Your task to perform on an android device: Go to Wikipedia Image 0: 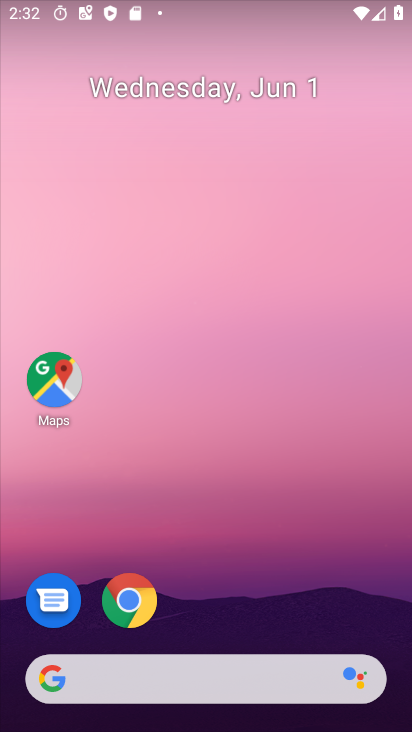
Step 0: click (165, 96)
Your task to perform on an android device: Go to Wikipedia Image 1: 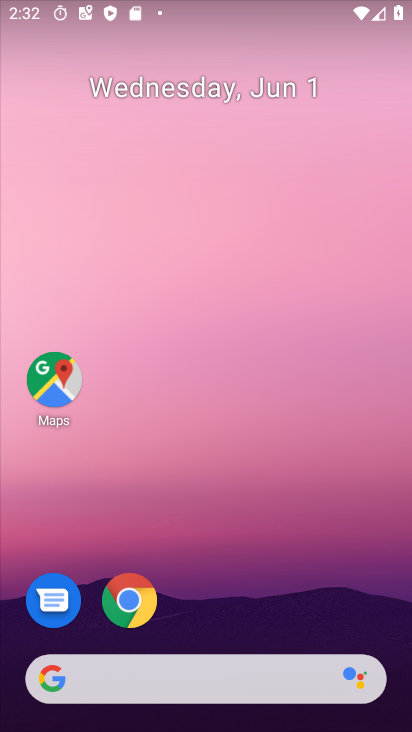
Step 1: drag from (248, 594) to (130, 199)
Your task to perform on an android device: Go to Wikipedia Image 2: 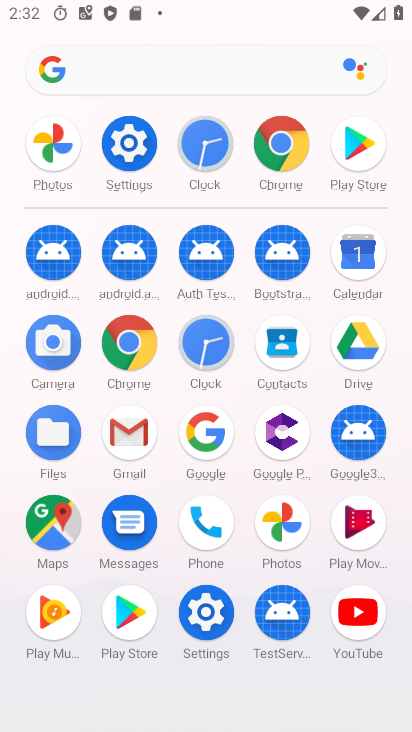
Step 2: click (136, 346)
Your task to perform on an android device: Go to Wikipedia Image 3: 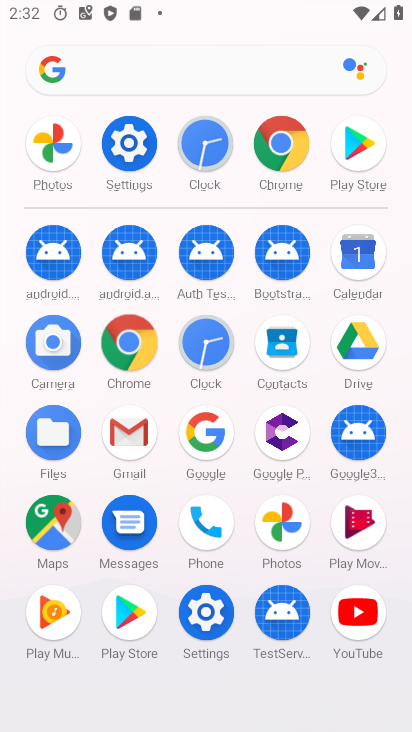
Step 3: click (136, 346)
Your task to perform on an android device: Go to Wikipedia Image 4: 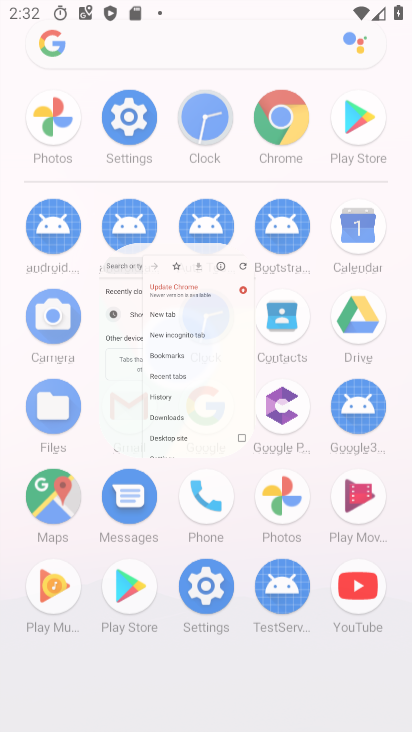
Step 4: click (137, 345)
Your task to perform on an android device: Go to Wikipedia Image 5: 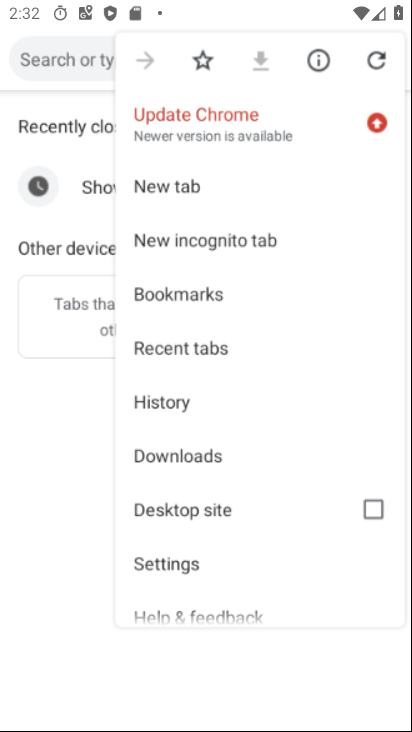
Step 5: click (139, 341)
Your task to perform on an android device: Go to Wikipedia Image 6: 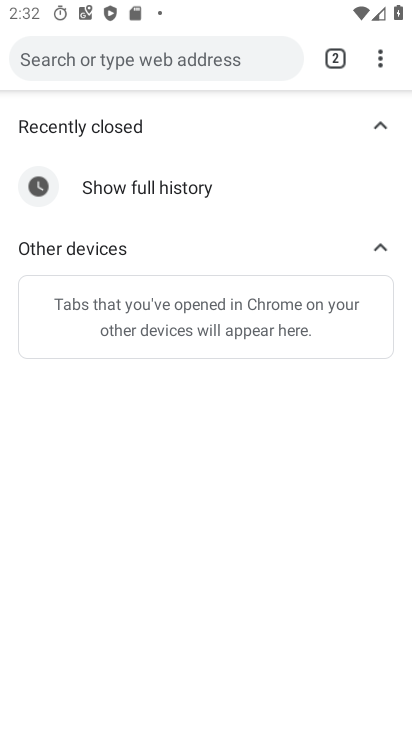
Step 6: press back button
Your task to perform on an android device: Go to Wikipedia Image 7: 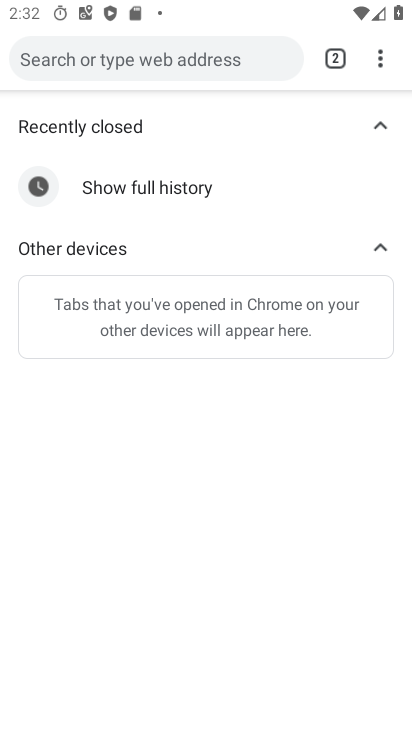
Step 7: press back button
Your task to perform on an android device: Go to Wikipedia Image 8: 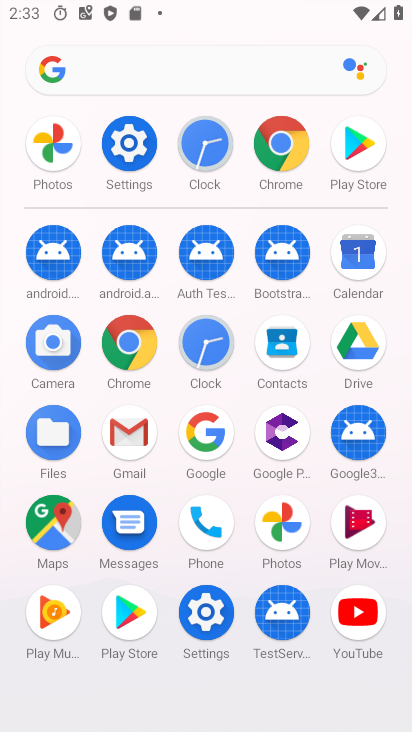
Step 8: click (280, 132)
Your task to perform on an android device: Go to Wikipedia Image 9: 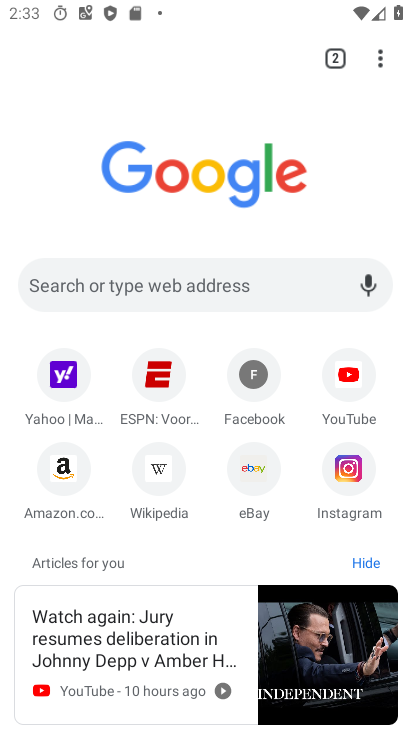
Step 9: click (159, 467)
Your task to perform on an android device: Go to Wikipedia Image 10: 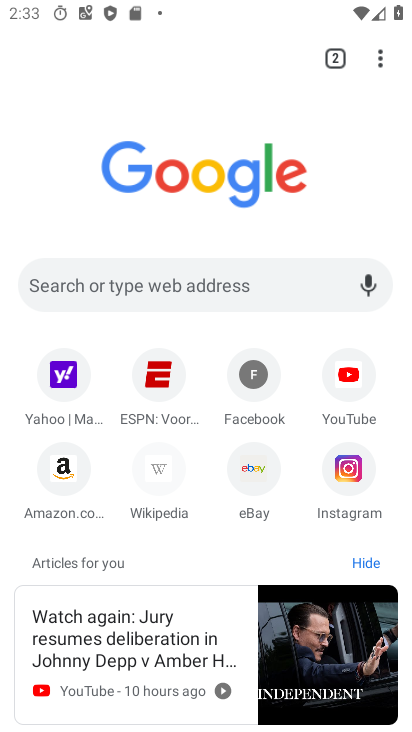
Step 10: click (156, 462)
Your task to perform on an android device: Go to Wikipedia Image 11: 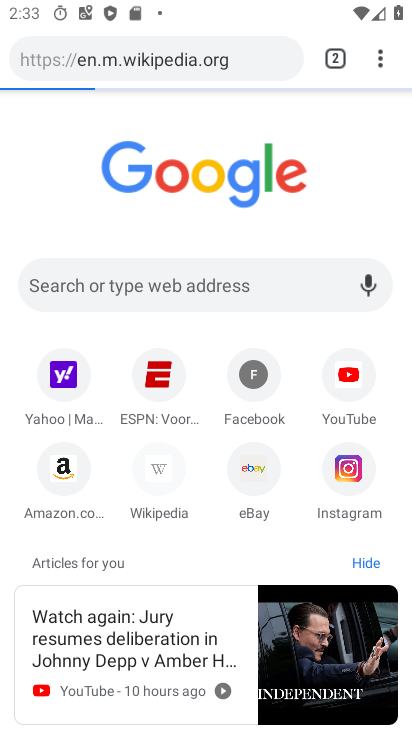
Step 11: task complete